Your task to perform on an android device: turn off picture-in-picture Image 0: 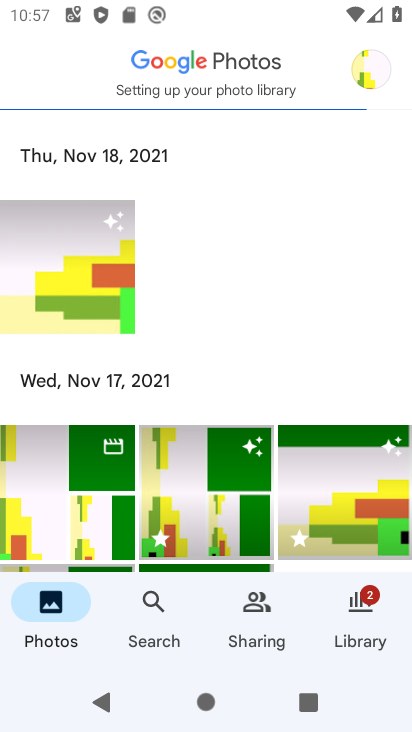
Step 0: press home button
Your task to perform on an android device: turn off picture-in-picture Image 1: 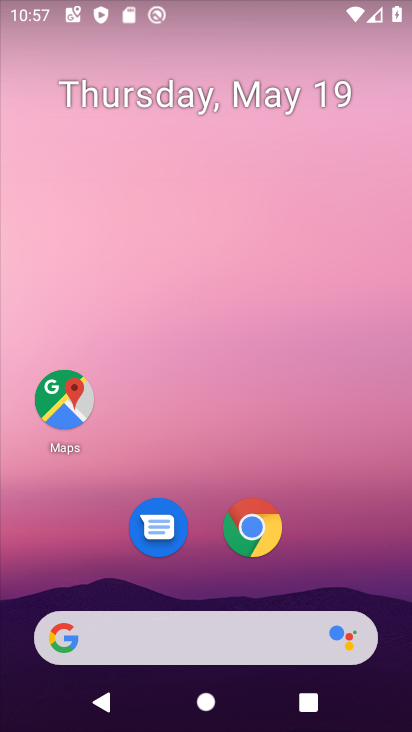
Step 1: click (258, 532)
Your task to perform on an android device: turn off picture-in-picture Image 2: 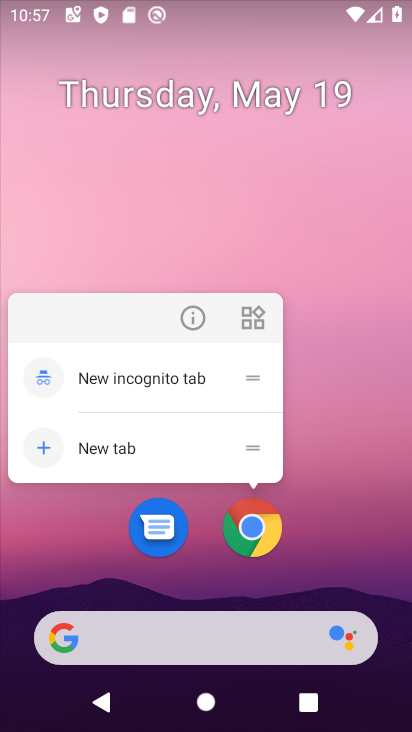
Step 2: click (200, 320)
Your task to perform on an android device: turn off picture-in-picture Image 3: 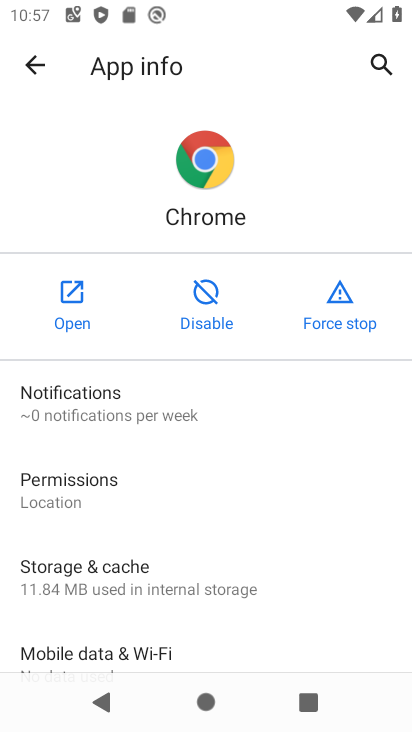
Step 3: drag from (149, 534) to (193, 232)
Your task to perform on an android device: turn off picture-in-picture Image 4: 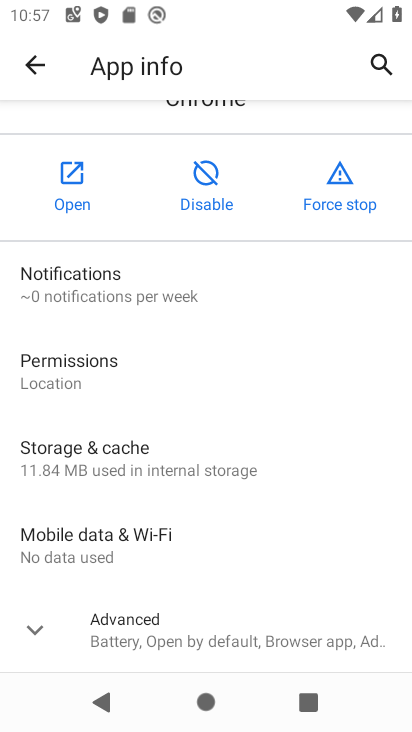
Step 4: click (124, 622)
Your task to perform on an android device: turn off picture-in-picture Image 5: 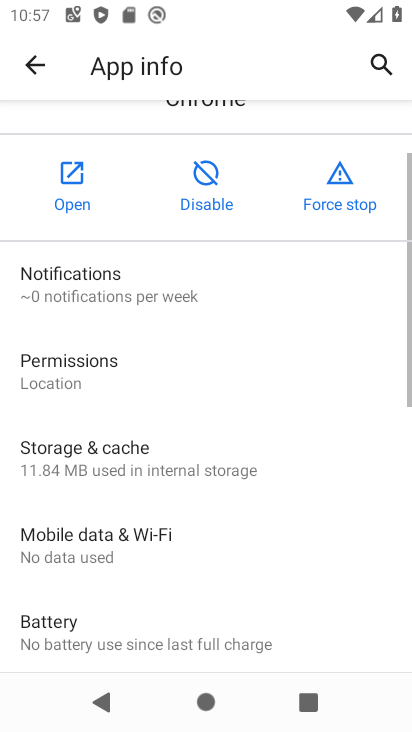
Step 5: drag from (144, 650) to (212, 353)
Your task to perform on an android device: turn off picture-in-picture Image 6: 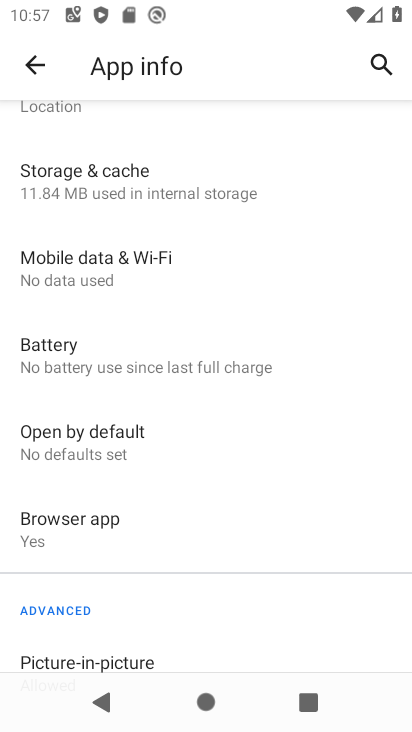
Step 6: drag from (114, 526) to (160, 248)
Your task to perform on an android device: turn off picture-in-picture Image 7: 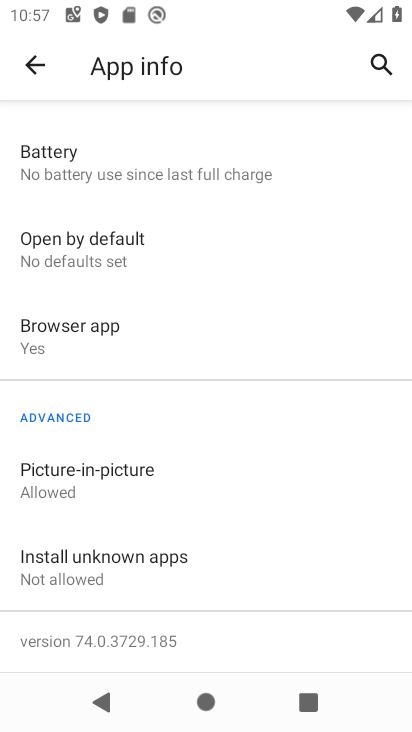
Step 7: click (102, 482)
Your task to perform on an android device: turn off picture-in-picture Image 8: 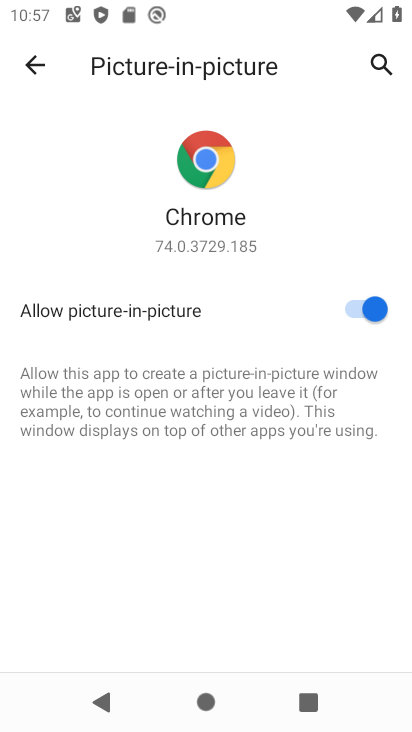
Step 8: click (348, 309)
Your task to perform on an android device: turn off picture-in-picture Image 9: 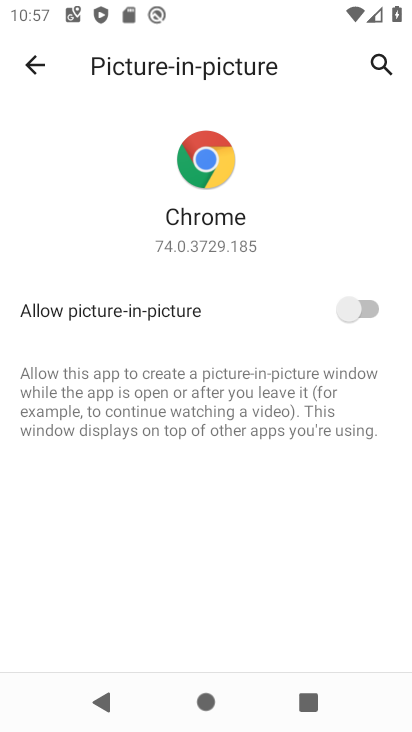
Step 9: task complete